Your task to perform on an android device: turn off location Image 0: 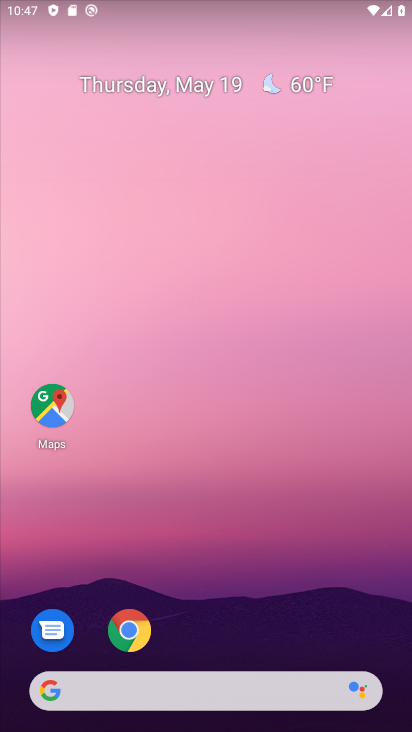
Step 0: drag from (223, 628) to (242, 281)
Your task to perform on an android device: turn off location Image 1: 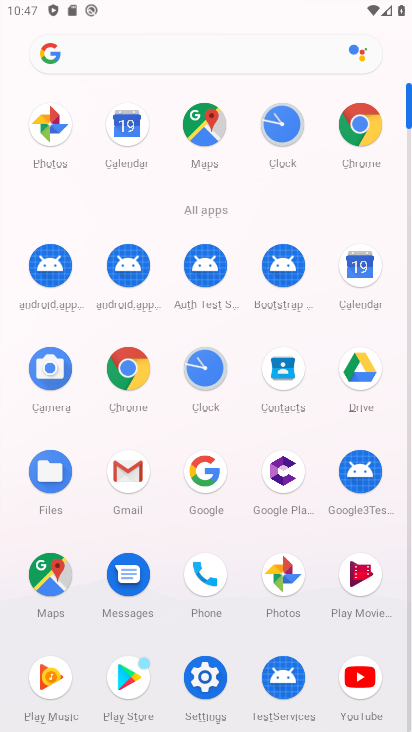
Step 1: click (212, 679)
Your task to perform on an android device: turn off location Image 2: 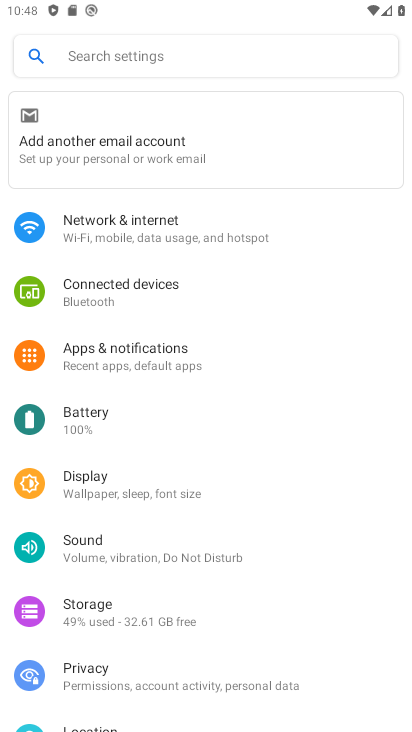
Step 2: drag from (246, 644) to (261, 222)
Your task to perform on an android device: turn off location Image 3: 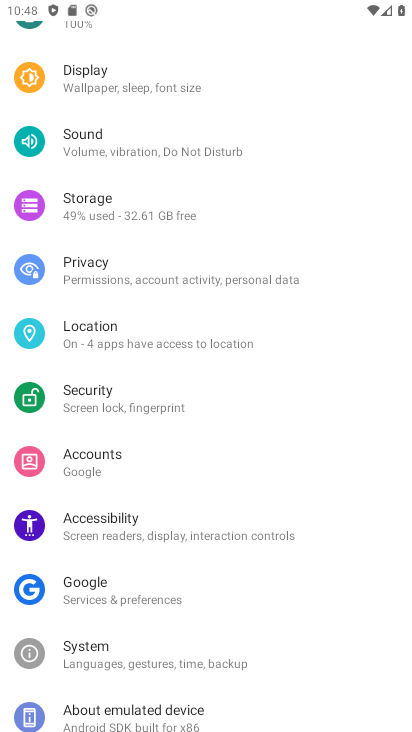
Step 3: click (242, 334)
Your task to perform on an android device: turn off location Image 4: 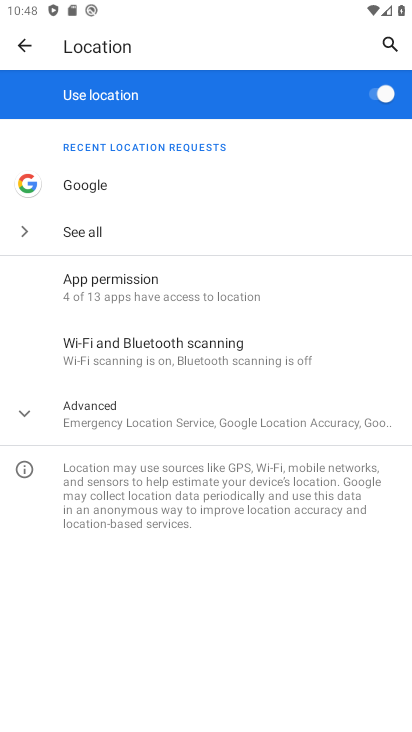
Step 4: click (383, 90)
Your task to perform on an android device: turn off location Image 5: 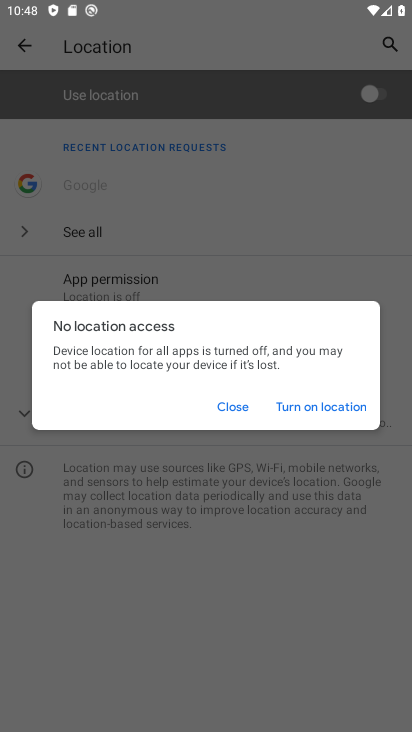
Step 5: task complete